Your task to perform on an android device: Open calendar and show me the second week of next month Image 0: 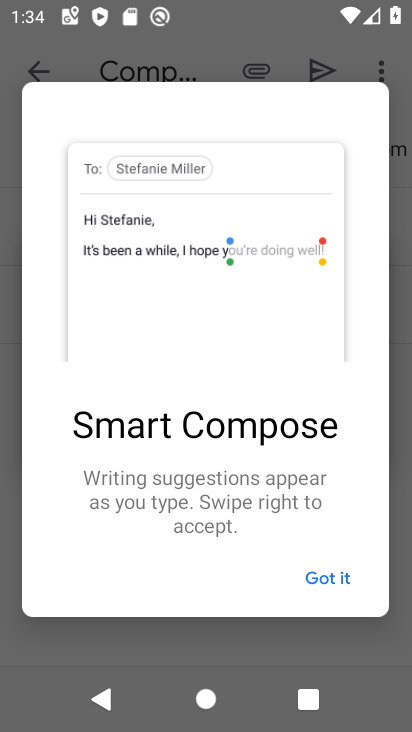
Step 0: press home button
Your task to perform on an android device: Open calendar and show me the second week of next month Image 1: 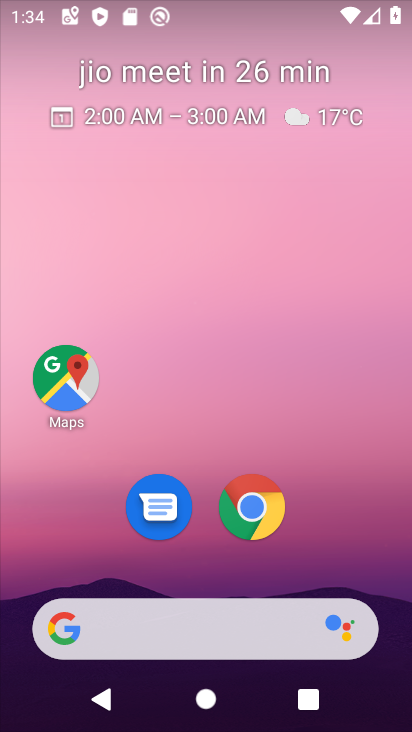
Step 1: drag from (348, 534) to (260, 9)
Your task to perform on an android device: Open calendar and show me the second week of next month Image 2: 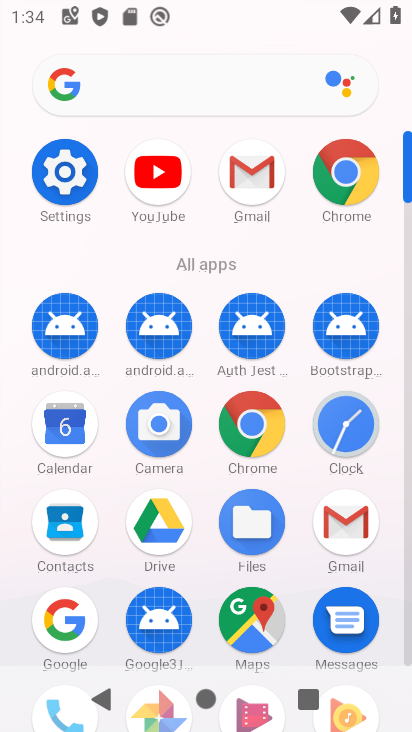
Step 2: drag from (30, 550) to (28, 275)
Your task to perform on an android device: Open calendar and show me the second week of next month Image 3: 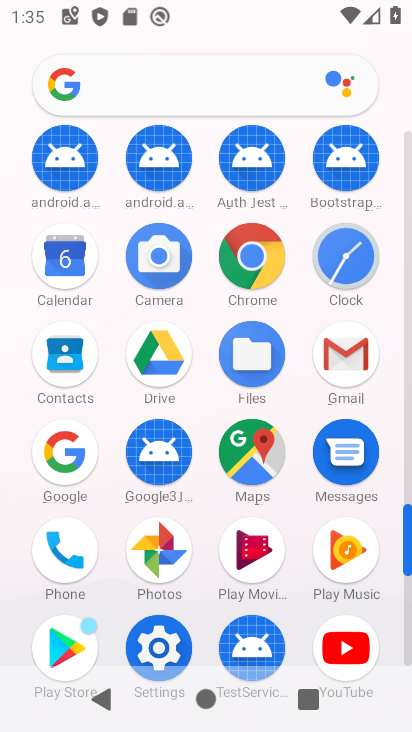
Step 3: click (64, 248)
Your task to perform on an android device: Open calendar and show me the second week of next month Image 4: 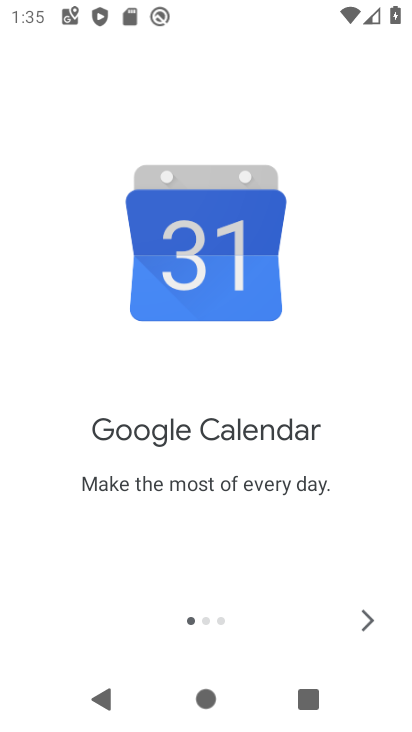
Step 4: click (361, 621)
Your task to perform on an android device: Open calendar and show me the second week of next month Image 5: 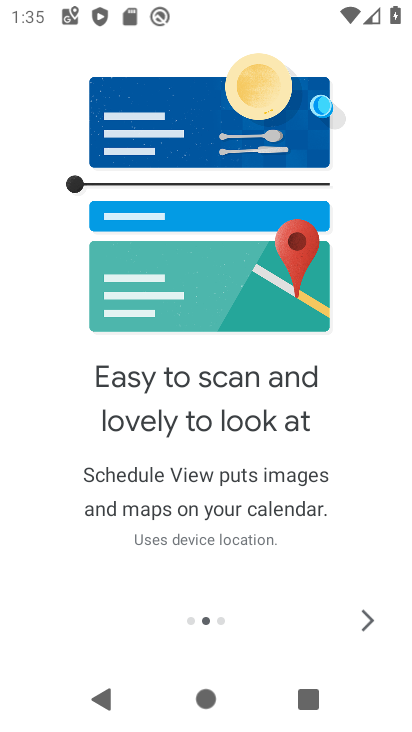
Step 5: click (363, 617)
Your task to perform on an android device: Open calendar and show me the second week of next month Image 6: 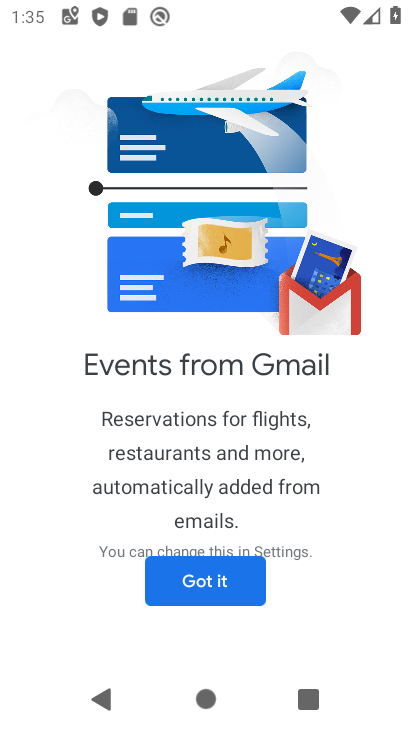
Step 6: click (209, 568)
Your task to perform on an android device: Open calendar and show me the second week of next month Image 7: 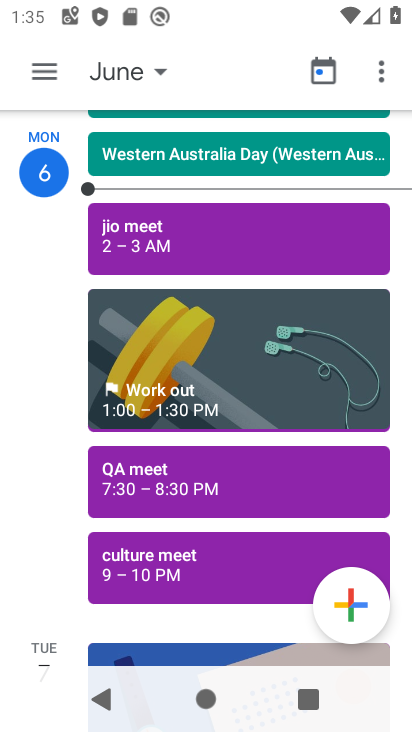
Step 7: click (318, 71)
Your task to perform on an android device: Open calendar and show me the second week of next month Image 8: 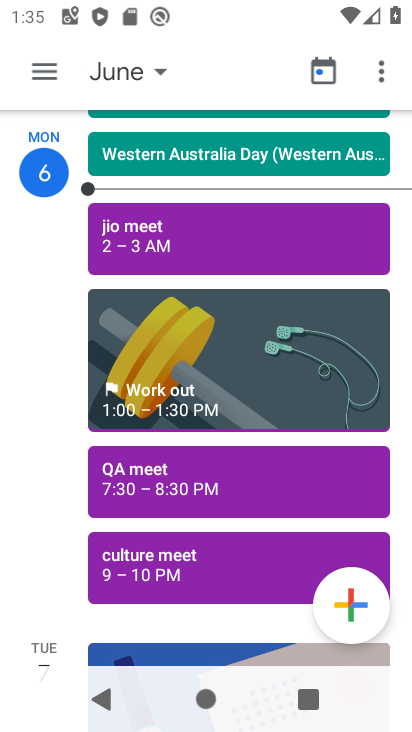
Step 8: click (118, 68)
Your task to perform on an android device: Open calendar and show me the second week of next month Image 9: 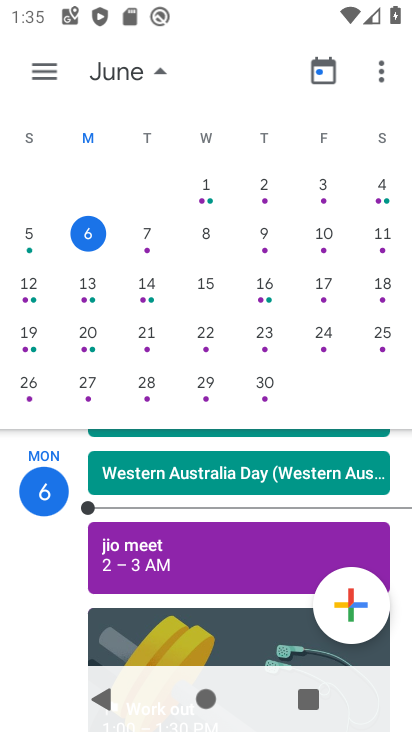
Step 9: drag from (389, 276) to (20, 321)
Your task to perform on an android device: Open calendar and show me the second week of next month Image 10: 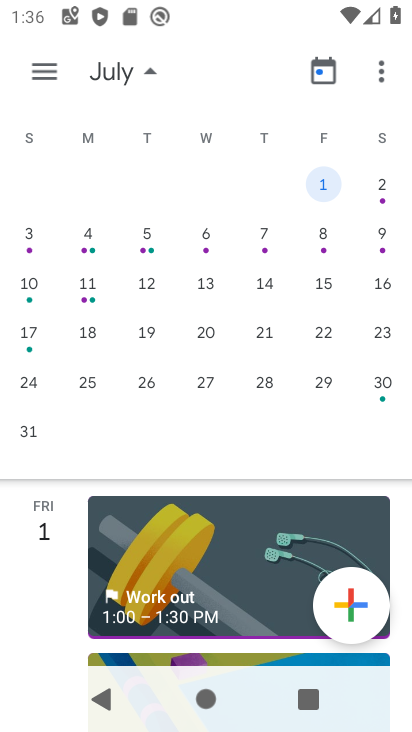
Step 10: click (30, 261)
Your task to perform on an android device: Open calendar and show me the second week of next month Image 11: 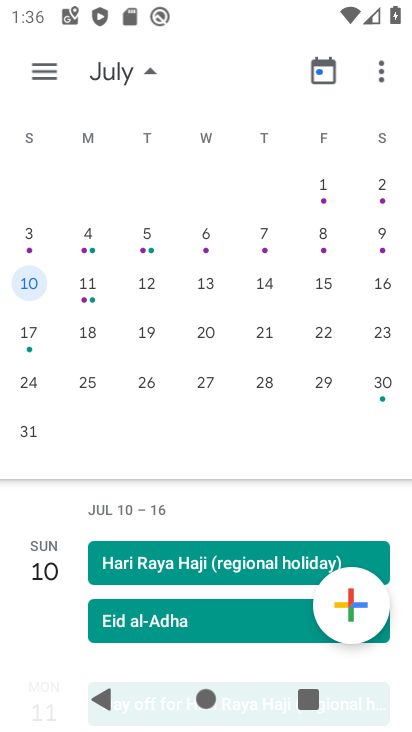
Step 11: click (50, 59)
Your task to perform on an android device: Open calendar and show me the second week of next month Image 12: 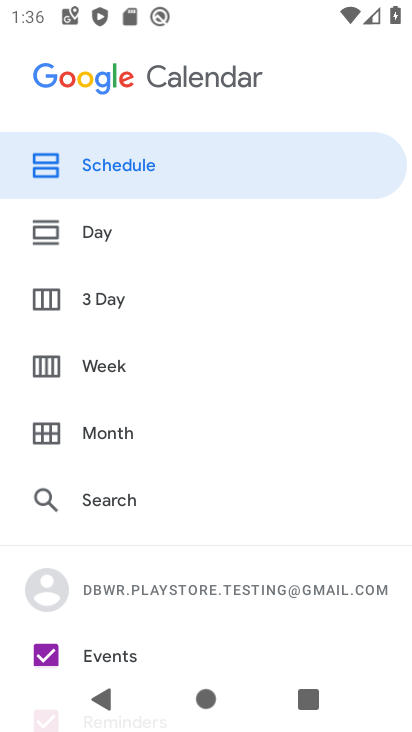
Step 12: click (114, 360)
Your task to perform on an android device: Open calendar and show me the second week of next month Image 13: 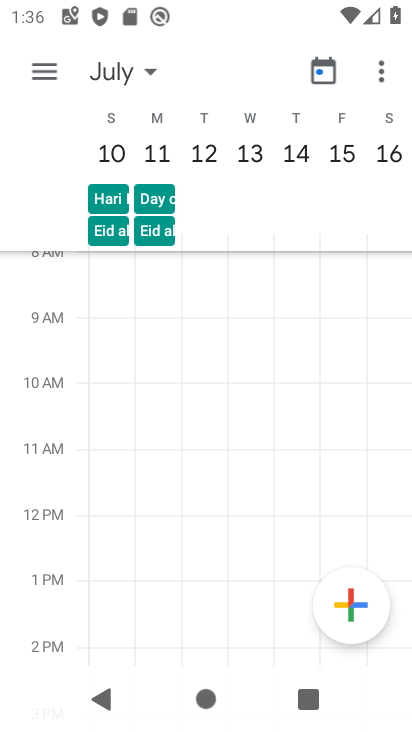
Step 13: task complete